Your task to perform on an android device: see sites visited before in the chrome app Image 0: 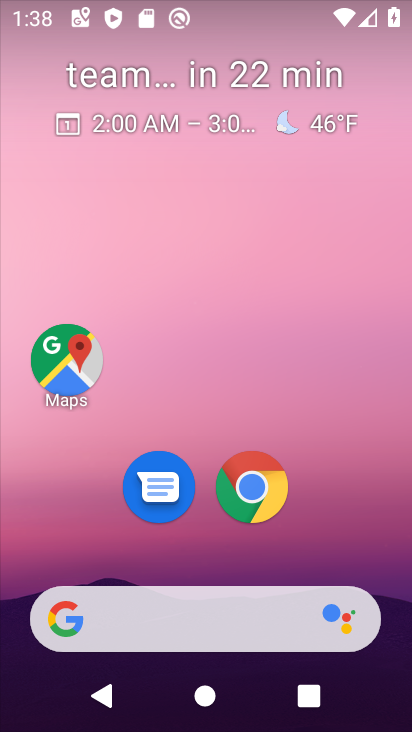
Step 0: drag from (336, 491) to (332, 64)
Your task to perform on an android device: see sites visited before in the chrome app Image 1: 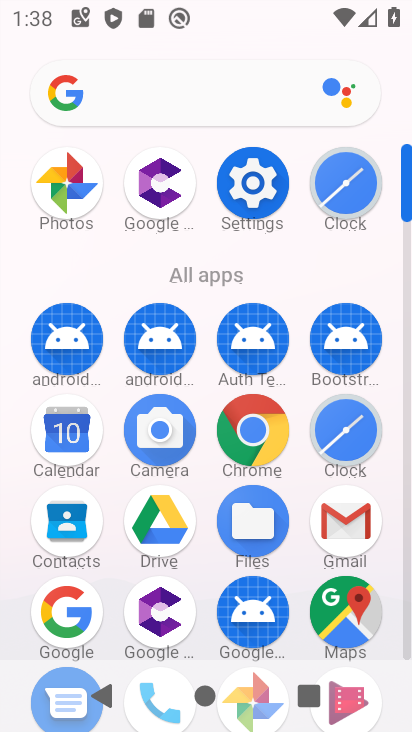
Step 1: click (250, 425)
Your task to perform on an android device: see sites visited before in the chrome app Image 2: 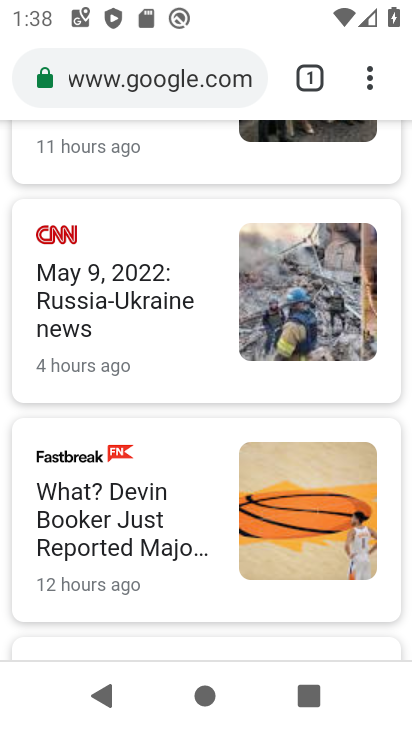
Step 2: task complete